Your task to perform on an android device: open a new tab in the chrome app Image 0: 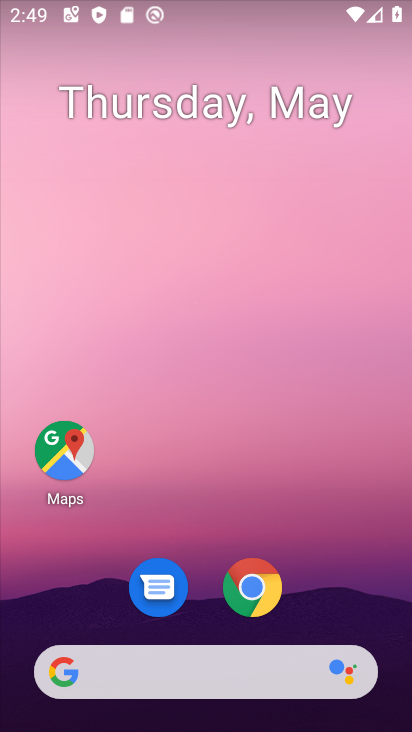
Step 0: click (258, 598)
Your task to perform on an android device: open a new tab in the chrome app Image 1: 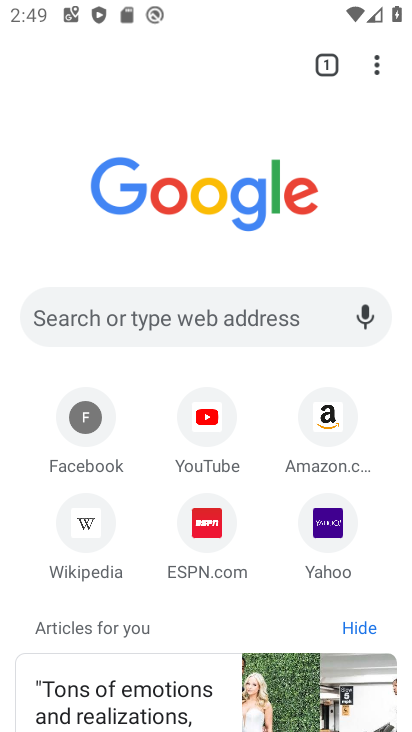
Step 1: click (386, 64)
Your task to perform on an android device: open a new tab in the chrome app Image 2: 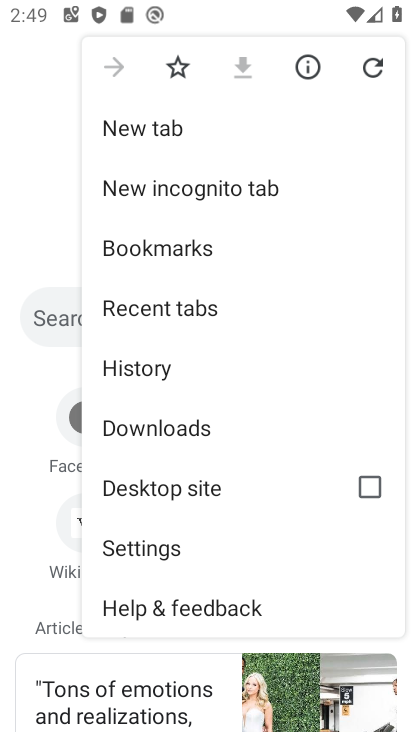
Step 2: click (237, 125)
Your task to perform on an android device: open a new tab in the chrome app Image 3: 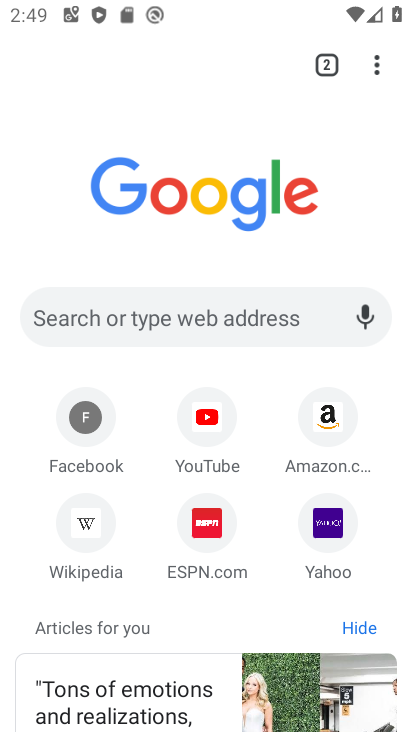
Step 3: task complete